Your task to perform on an android device: set the stopwatch Image 0: 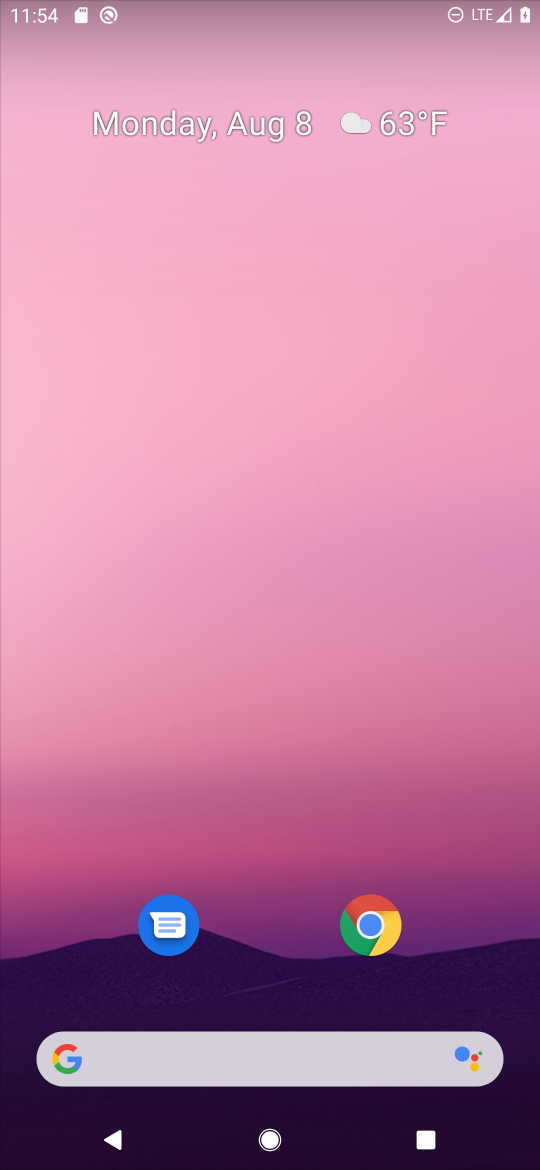
Step 0: drag from (270, 904) to (395, 148)
Your task to perform on an android device: set the stopwatch Image 1: 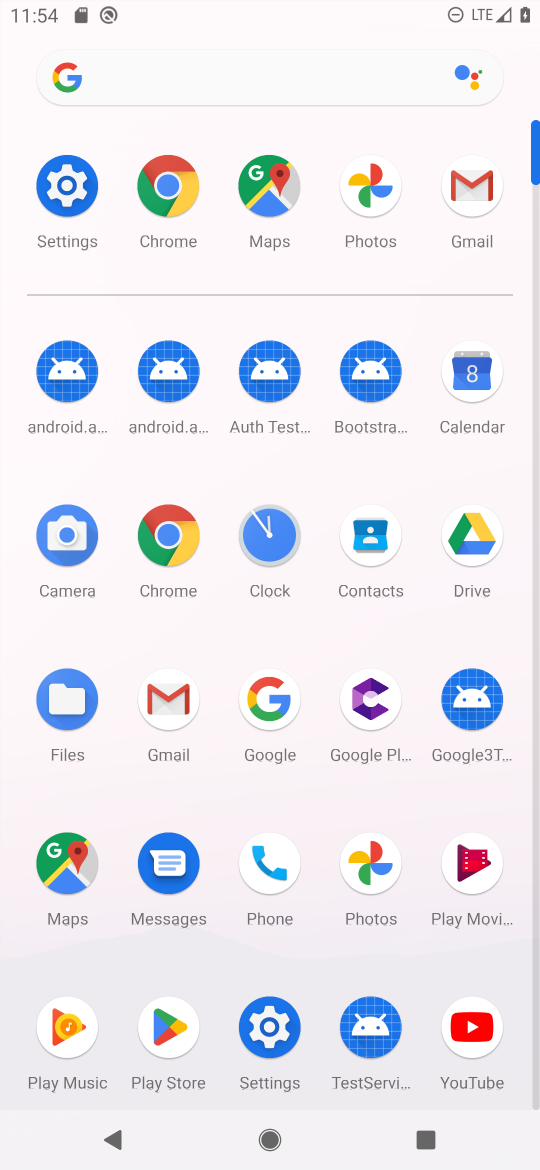
Step 1: click (283, 543)
Your task to perform on an android device: set the stopwatch Image 2: 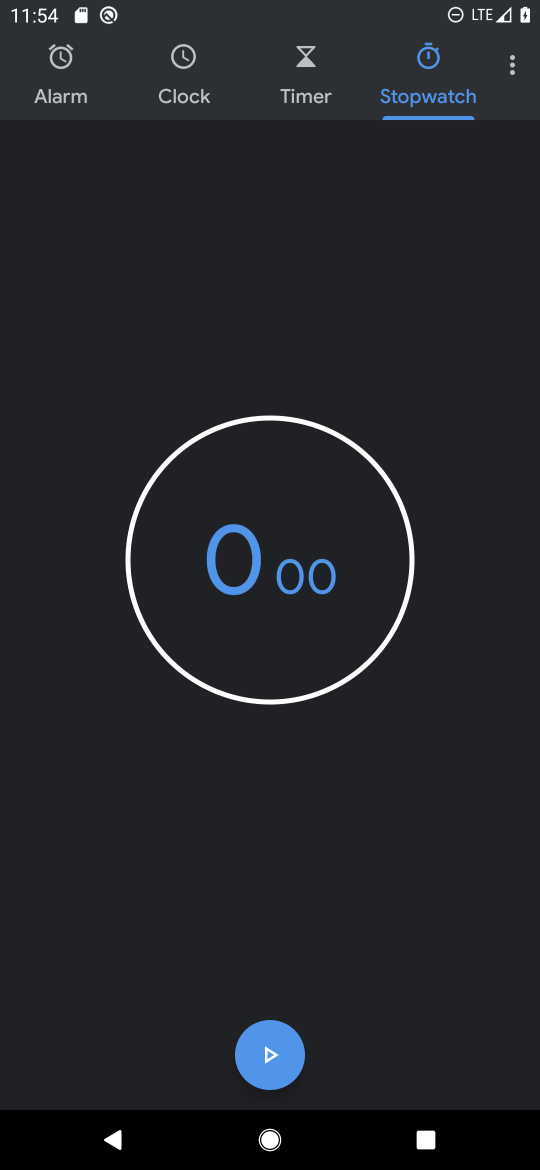
Step 2: click (257, 1078)
Your task to perform on an android device: set the stopwatch Image 3: 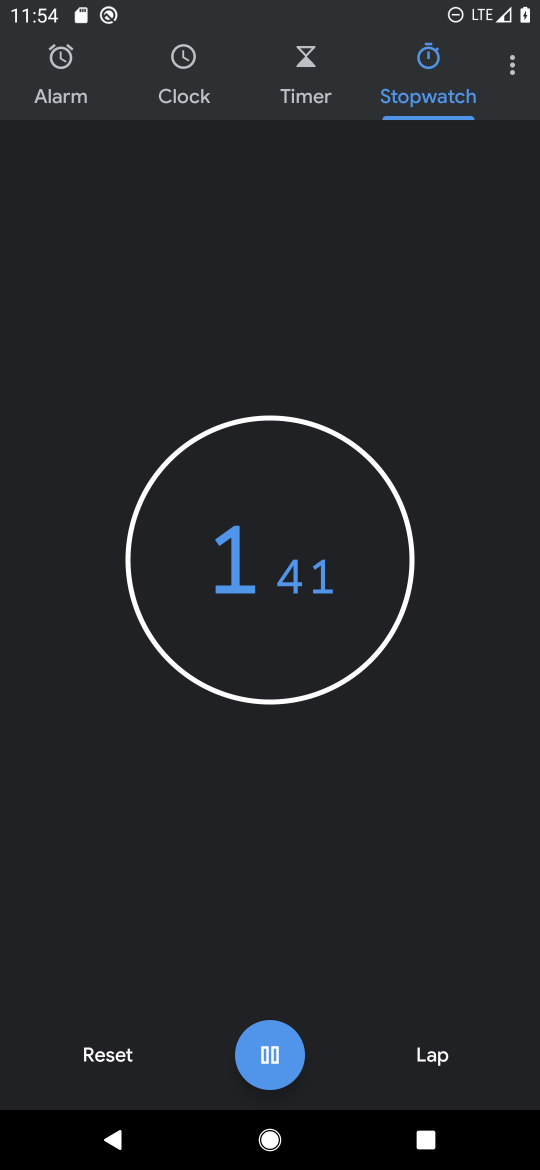
Step 3: click (254, 1069)
Your task to perform on an android device: set the stopwatch Image 4: 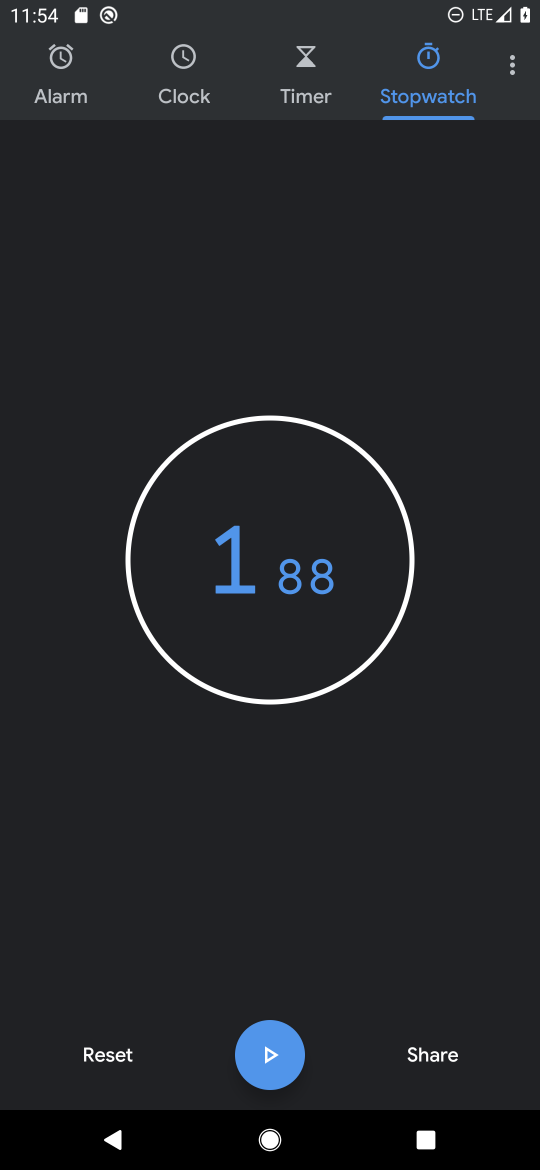
Step 4: task complete